Your task to perform on an android device: toggle sleep mode Image 0: 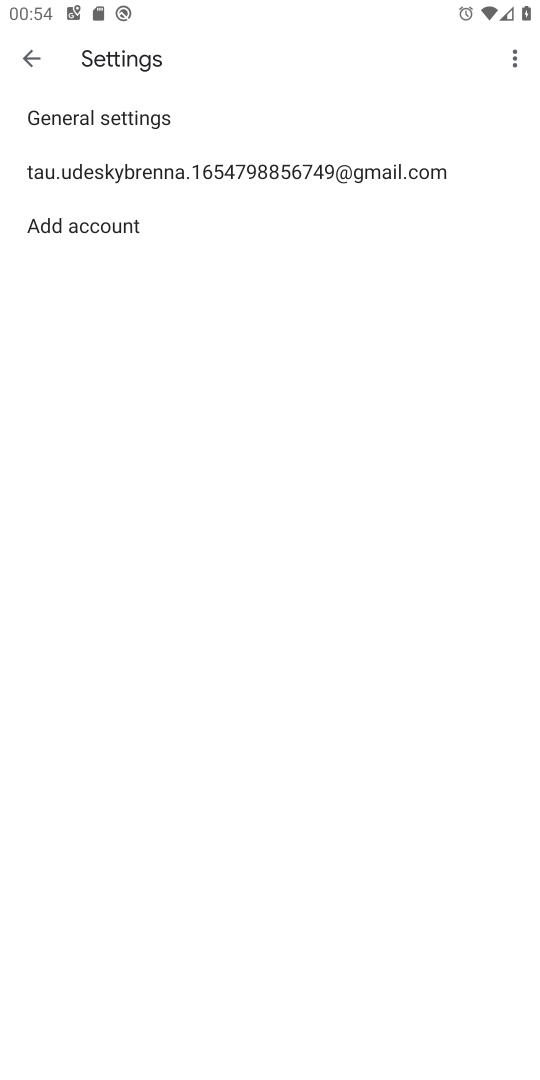
Step 0: press home button
Your task to perform on an android device: toggle sleep mode Image 1: 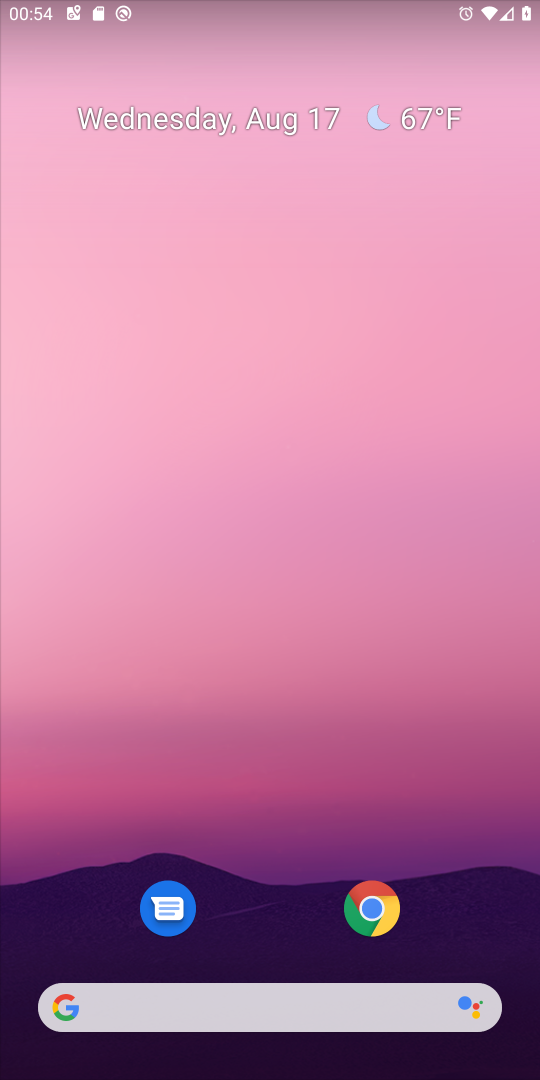
Step 1: drag from (301, 874) to (338, 348)
Your task to perform on an android device: toggle sleep mode Image 2: 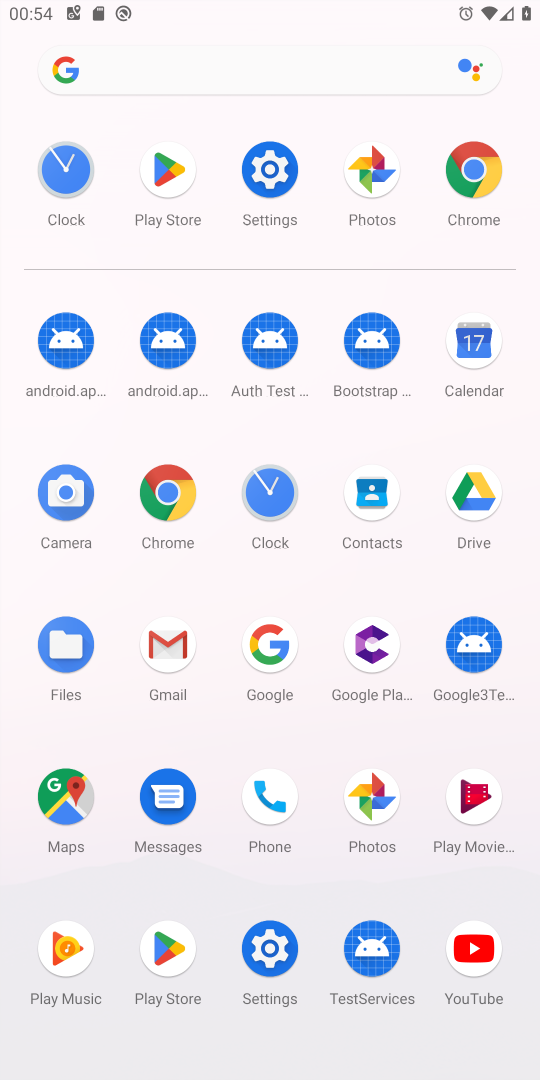
Step 2: click (285, 174)
Your task to perform on an android device: toggle sleep mode Image 3: 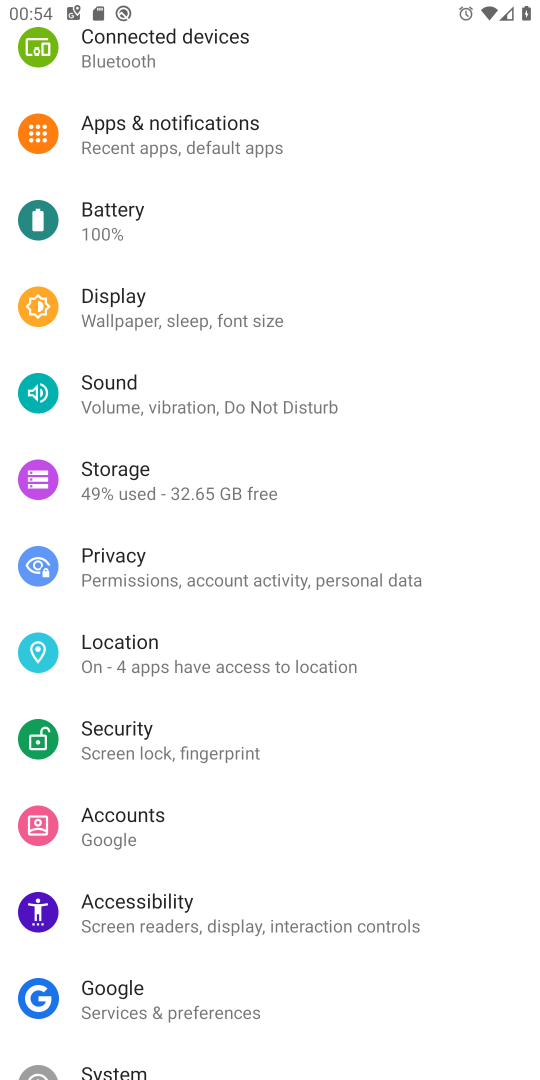
Step 3: click (209, 312)
Your task to perform on an android device: toggle sleep mode Image 4: 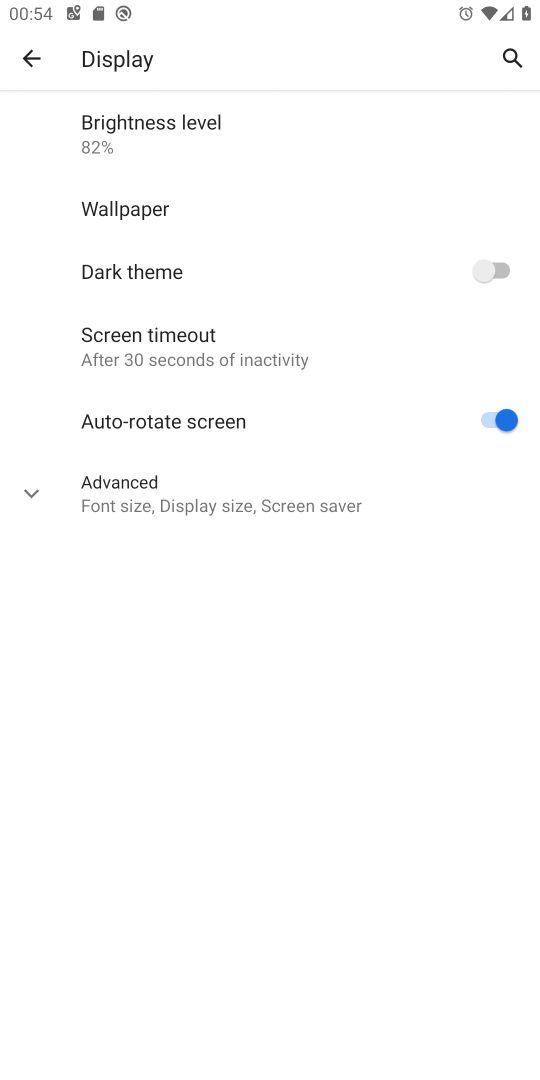
Step 4: click (197, 325)
Your task to perform on an android device: toggle sleep mode Image 5: 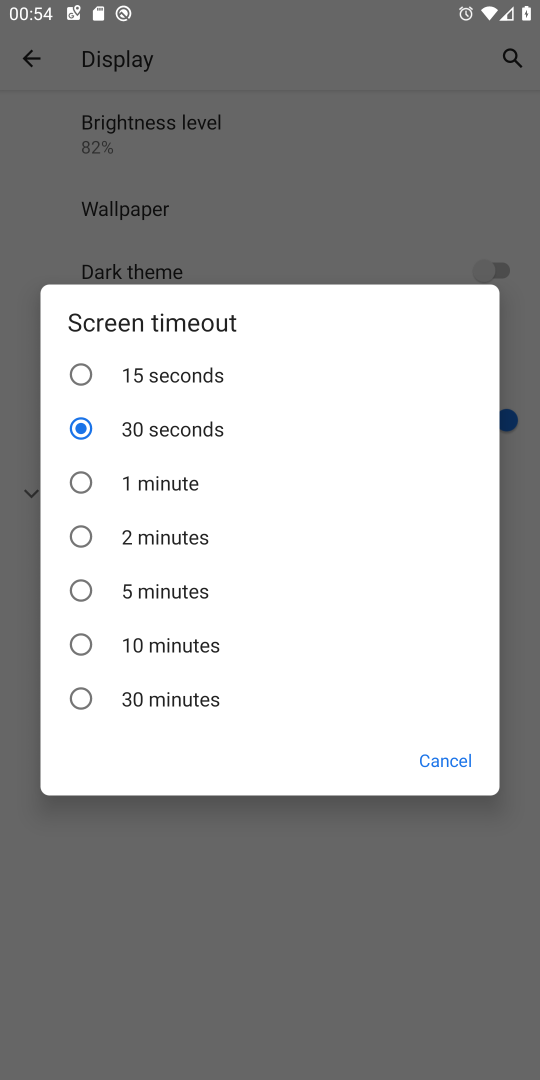
Step 5: click (150, 628)
Your task to perform on an android device: toggle sleep mode Image 6: 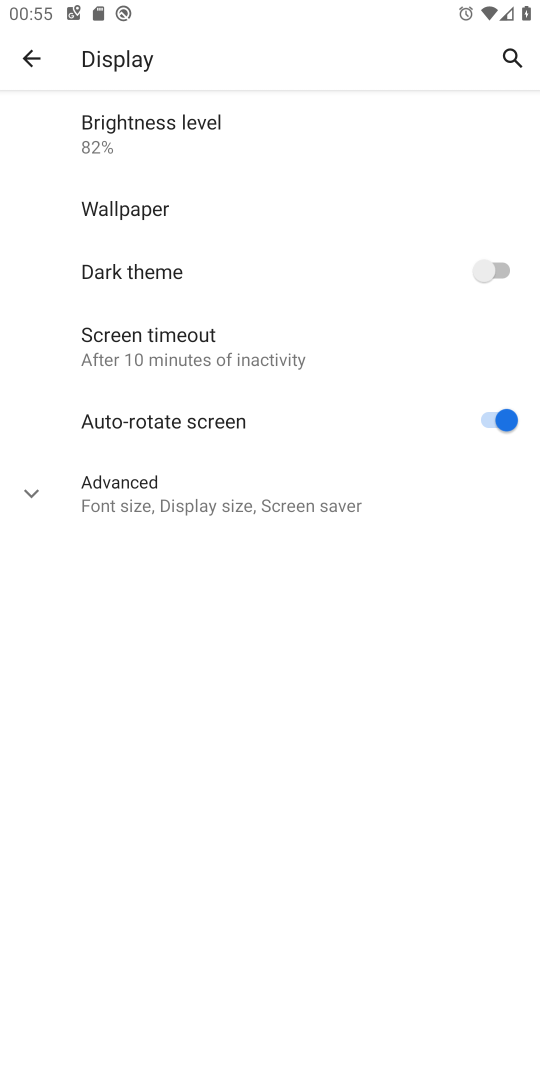
Step 6: task complete